Your task to perform on an android device: Turn off the flashlight Image 0: 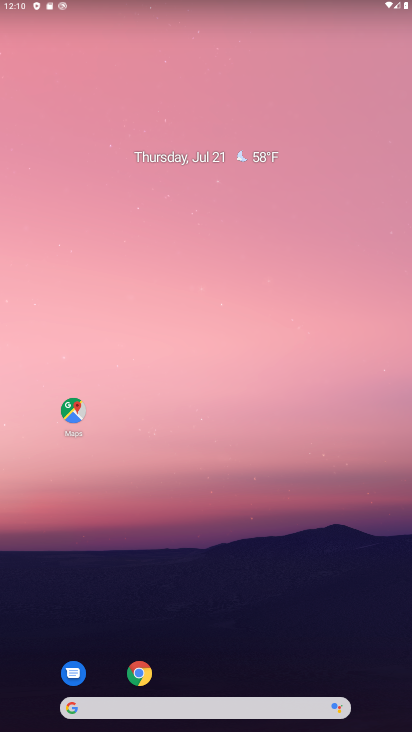
Step 0: drag from (231, 661) to (231, 193)
Your task to perform on an android device: Turn off the flashlight Image 1: 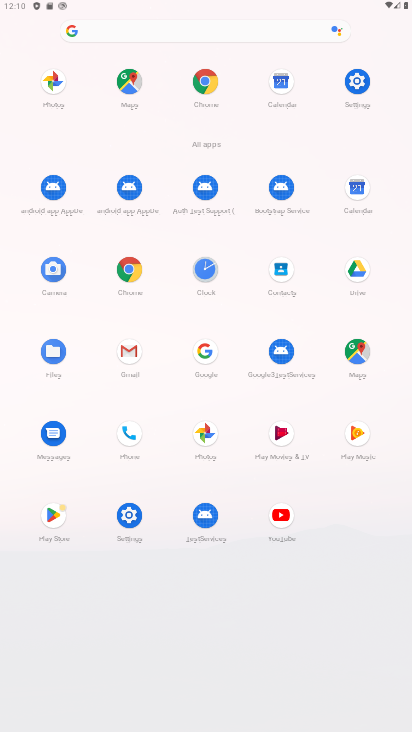
Step 1: click (362, 75)
Your task to perform on an android device: Turn off the flashlight Image 2: 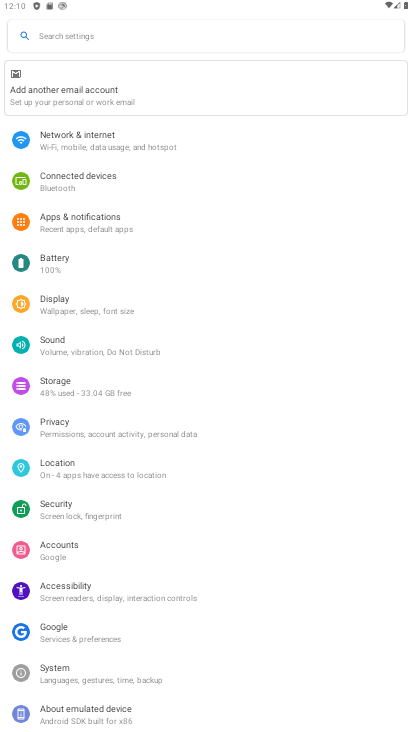
Step 2: task complete